Your task to perform on an android device: Open settings on Google Maps Image 0: 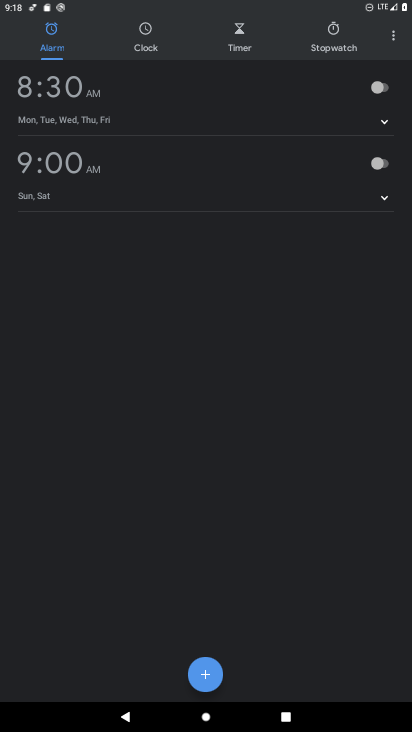
Step 0: press home button
Your task to perform on an android device: Open settings on Google Maps Image 1: 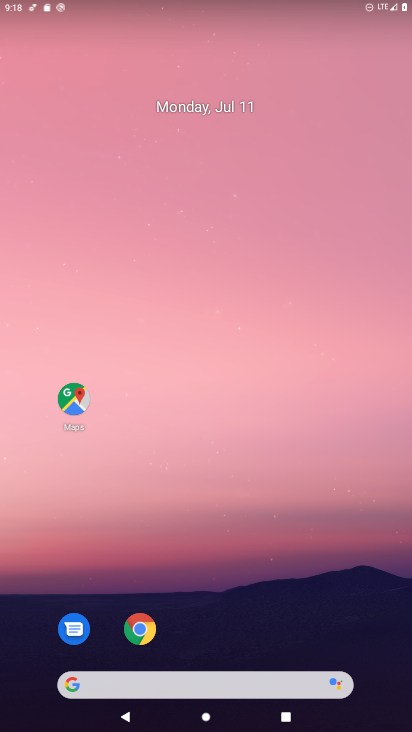
Step 1: click (60, 397)
Your task to perform on an android device: Open settings on Google Maps Image 2: 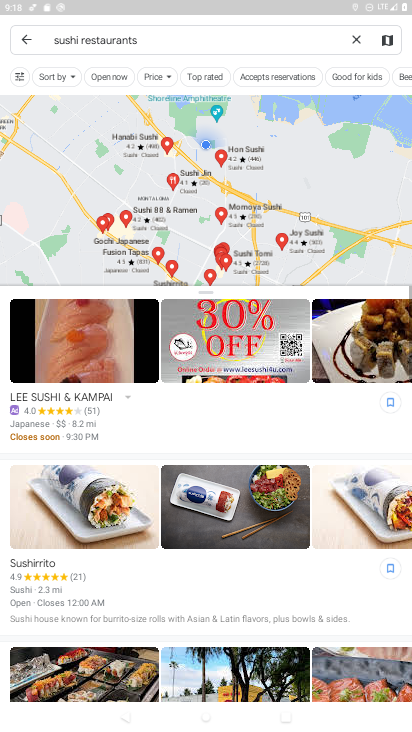
Step 2: click (33, 35)
Your task to perform on an android device: Open settings on Google Maps Image 3: 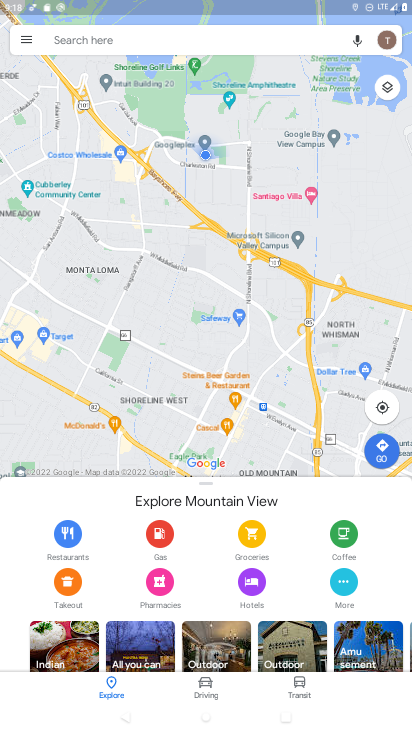
Step 3: click (33, 35)
Your task to perform on an android device: Open settings on Google Maps Image 4: 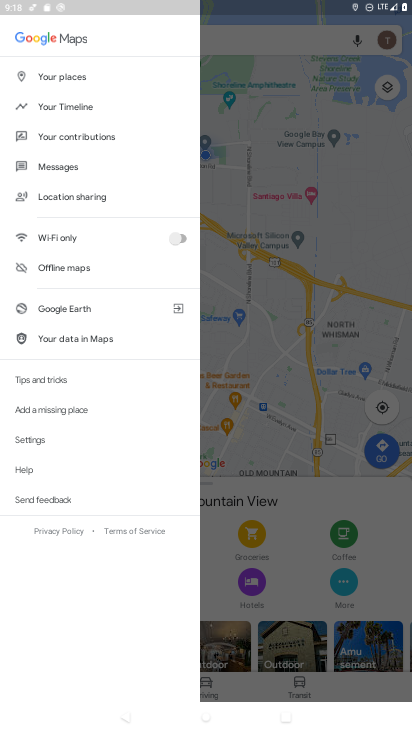
Step 4: click (83, 440)
Your task to perform on an android device: Open settings on Google Maps Image 5: 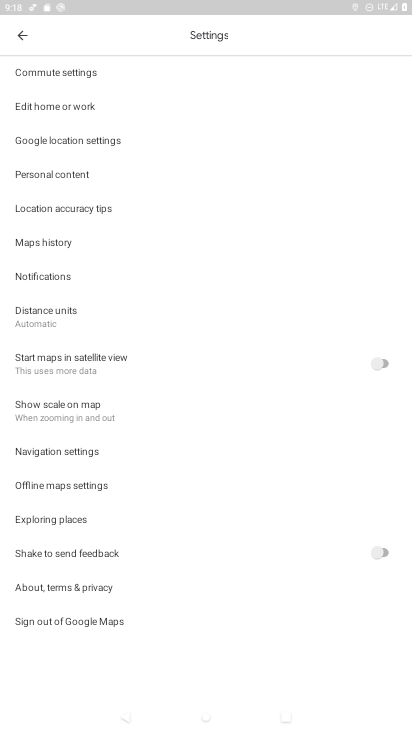
Step 5: task complete